Your task to perform on an android device: turn notification dots on Image 0: 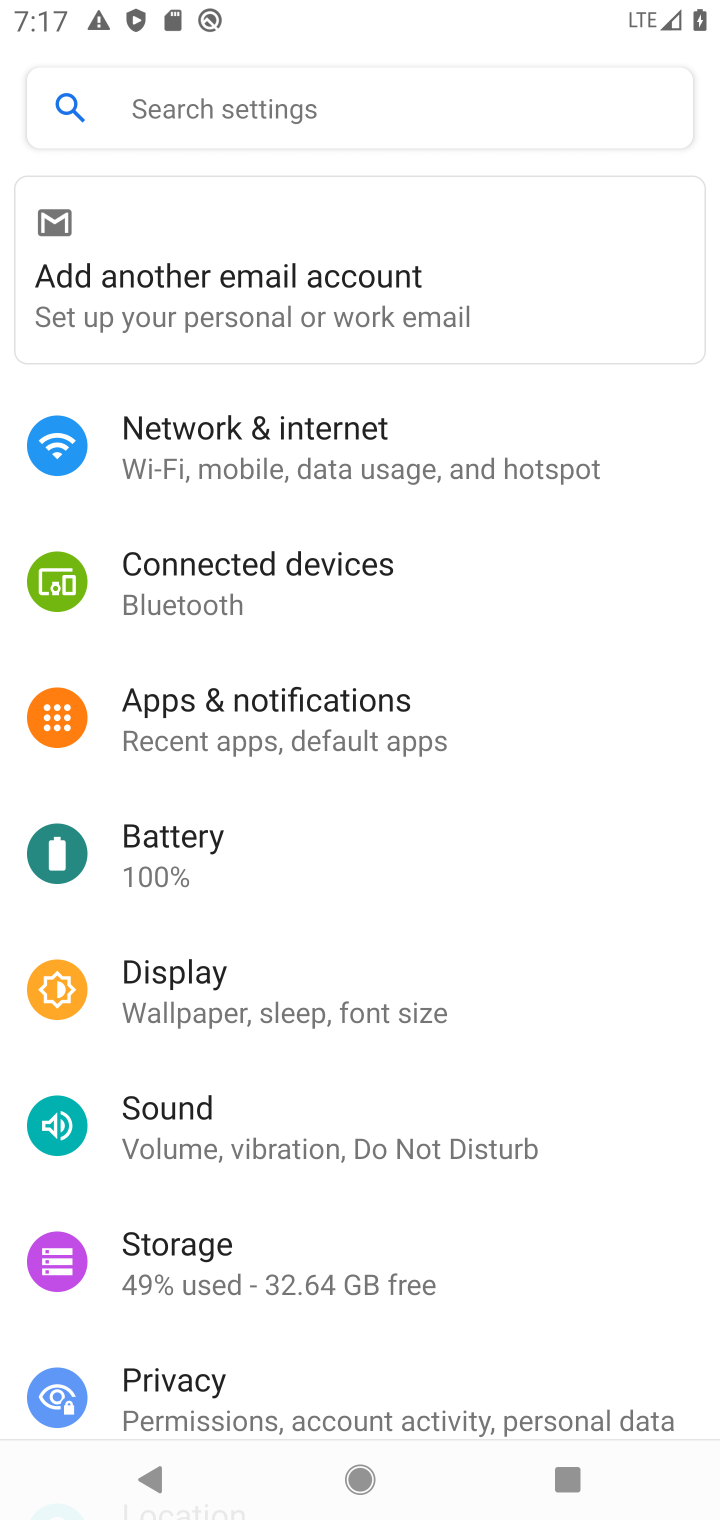
Step 0: click (199, 118)
Your task to perform on an android device: turn notification dots on Image 1: 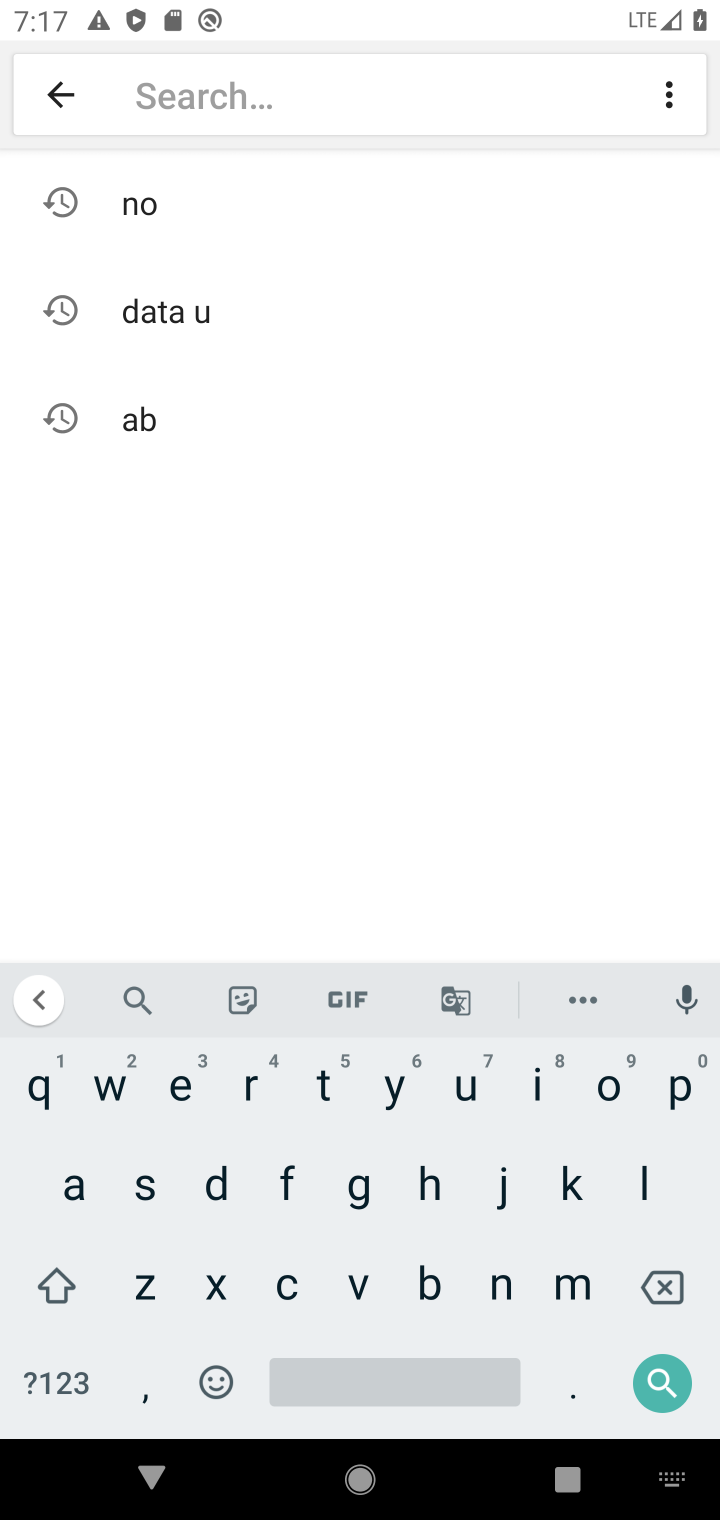
Step 1: click (185, 204)
Your task to perform on an android device: turn notification dots on Image 2: 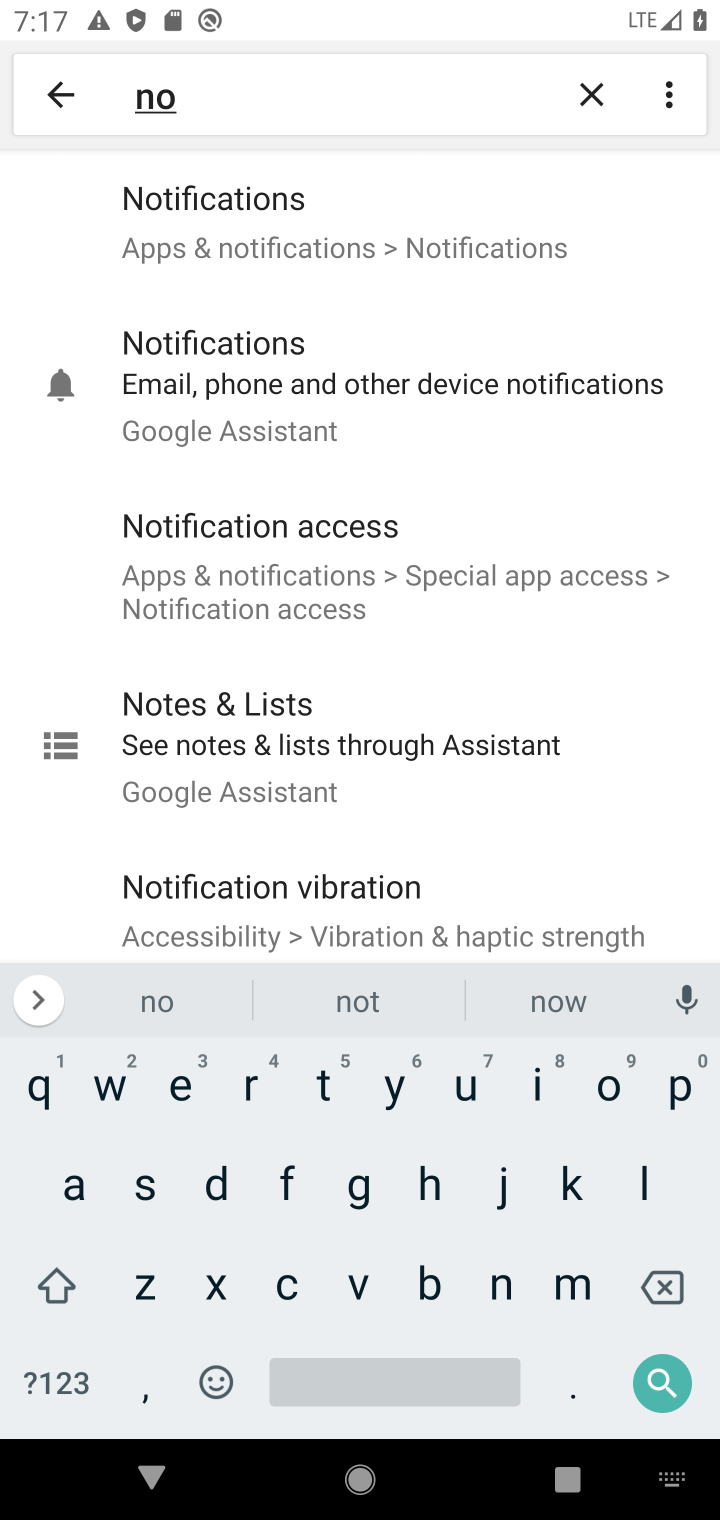
Step 2: click (233, 231)
Your task to perform on an android device: turn notification dots on Image 3: 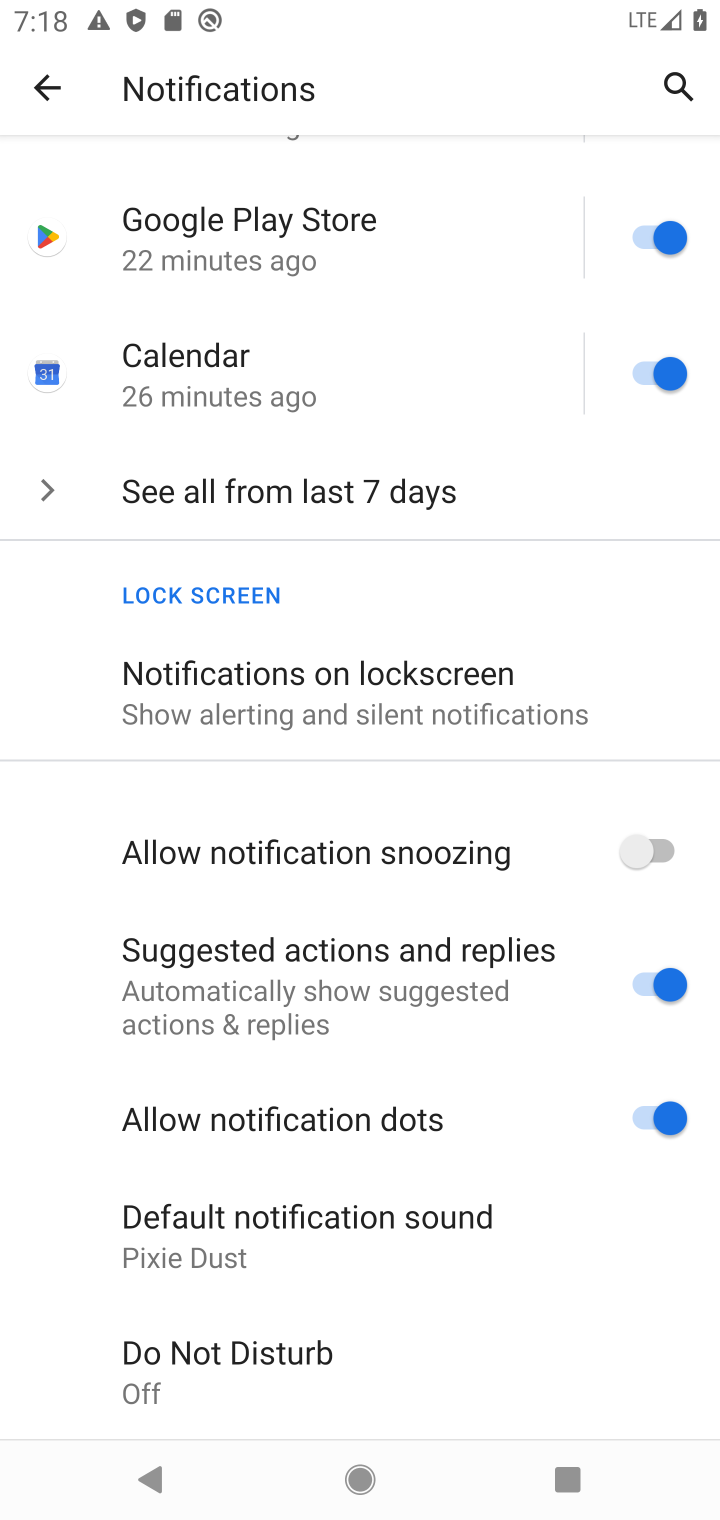
Step 3: click (494, 1120)
Your task to perform on an android device: turn notification dots on Image 4: 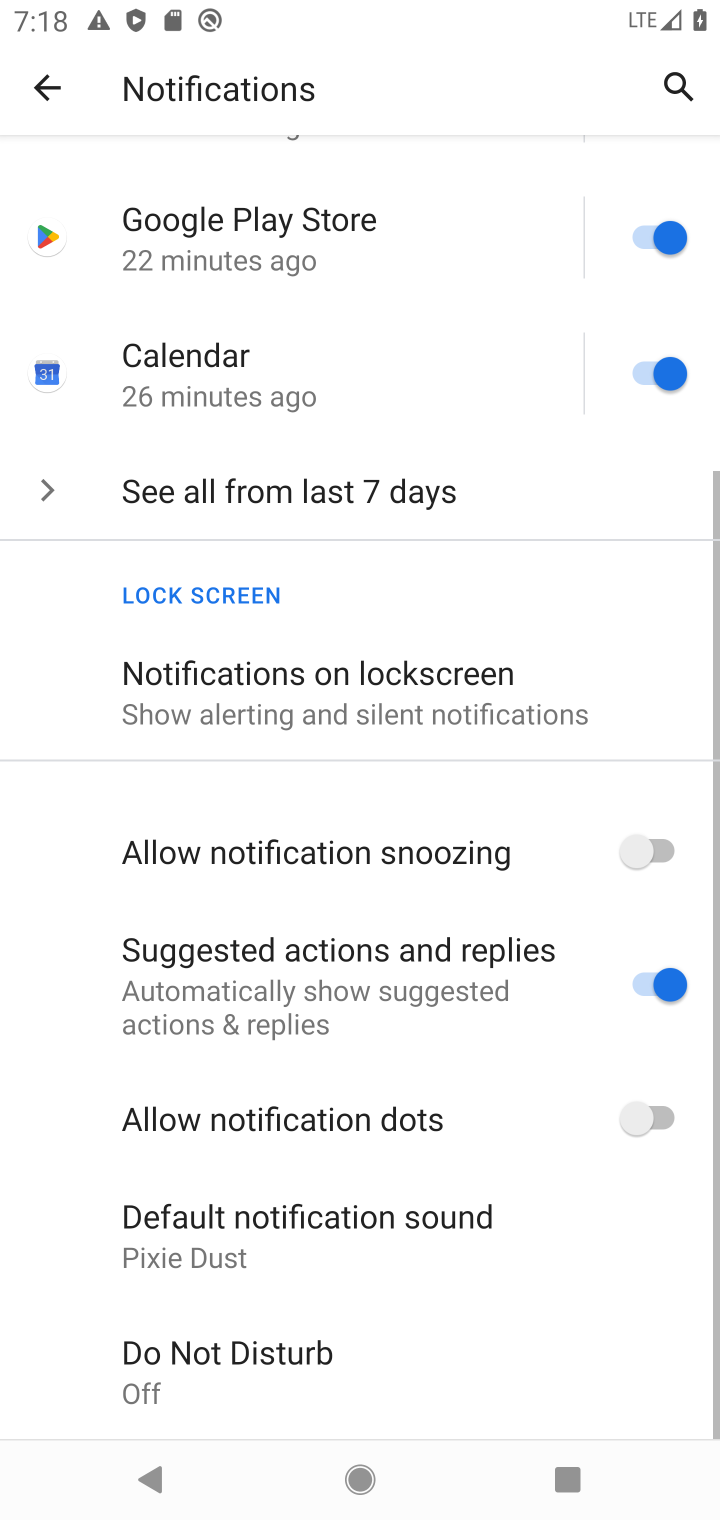
Step 4: click (494, 1120)
Your task to perform on an android device: turn notification dots on Image 5: 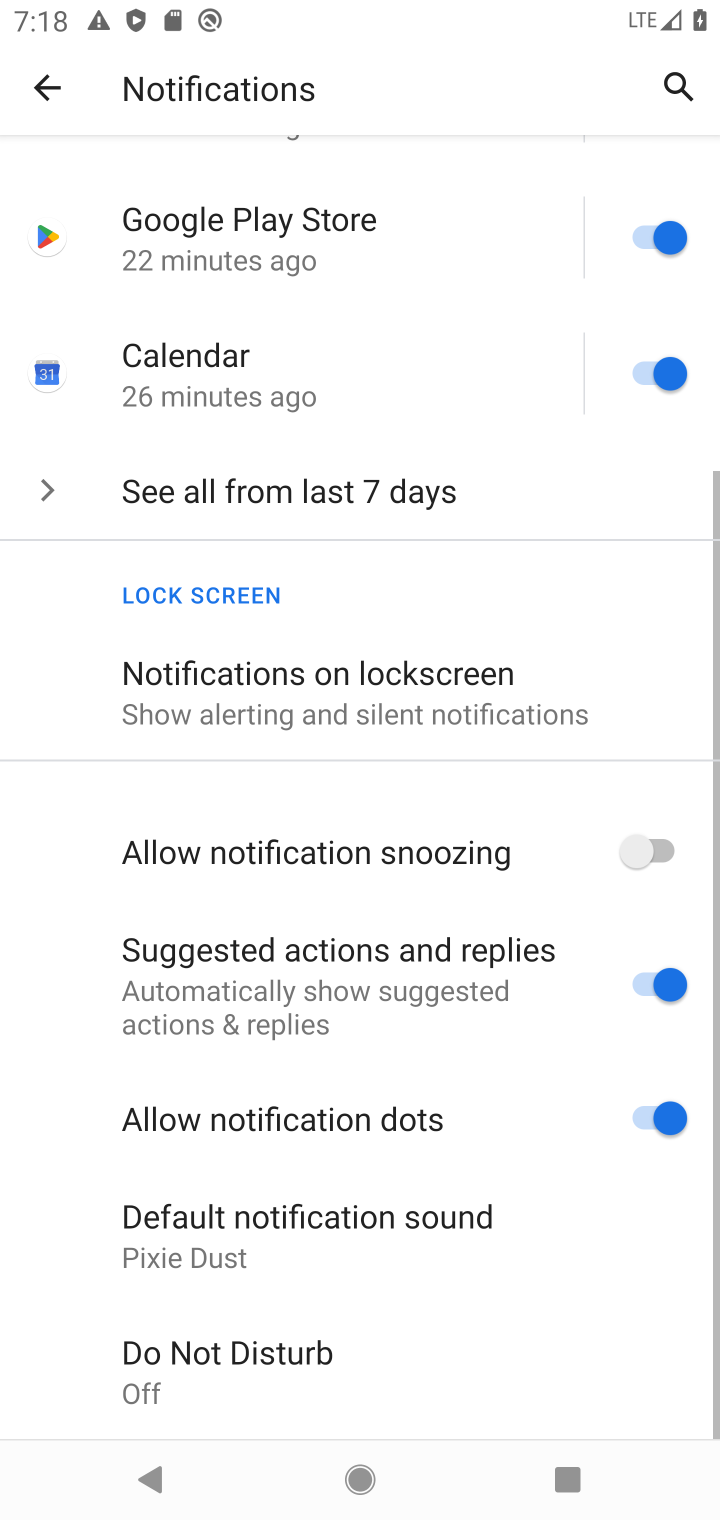
Step 5: task complete